Your task to perform on an android device: turn on sleep mode Image 0: 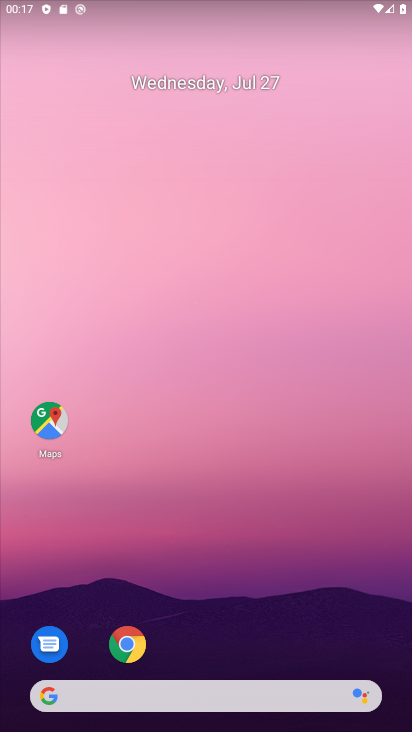
Step 0: drag from (175, 717) to (139, 365)
Your task to perform on an android device: turn on sleep mode Image 1: 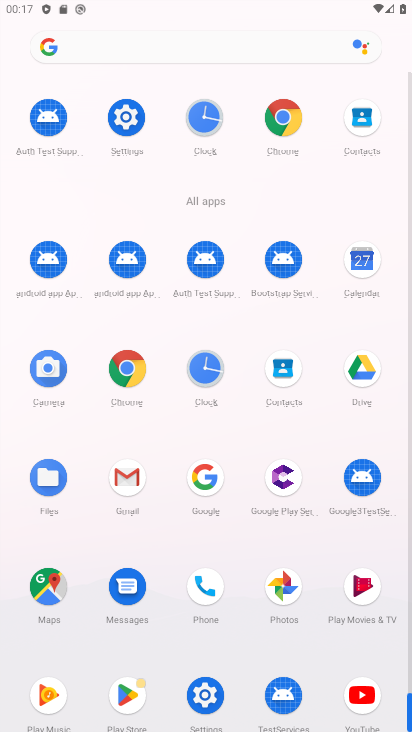
Step 1: click (129, 127)
Your task to perform on an android device: turn on sleep mode Image 2: 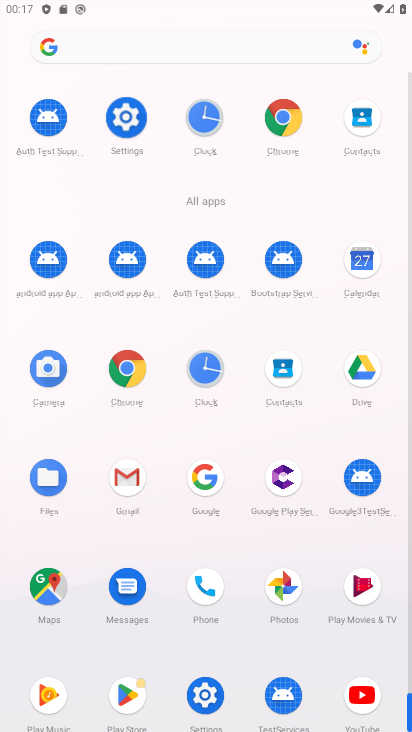
Step 2: click (129, 127)
Your task to perform on an android device: turn on sleep mode Image 3: 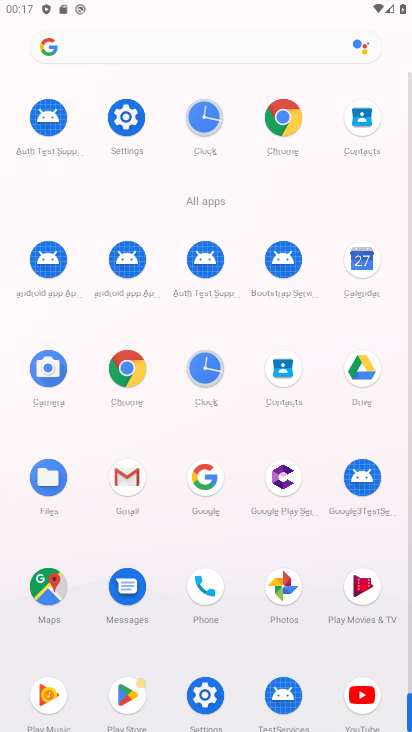
Step 3: click (135, 120)
Your task to perform on an android device: turn on sleep mode Image 4: 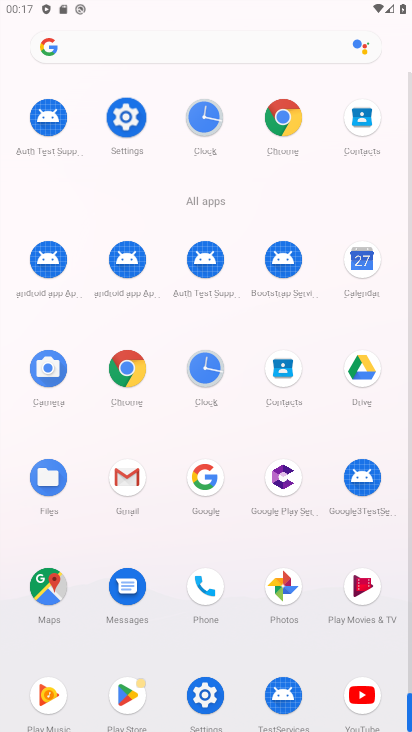
Step 4: click (134, 122)
Your task to perform on an android device: turn on sleep mode Image 5: 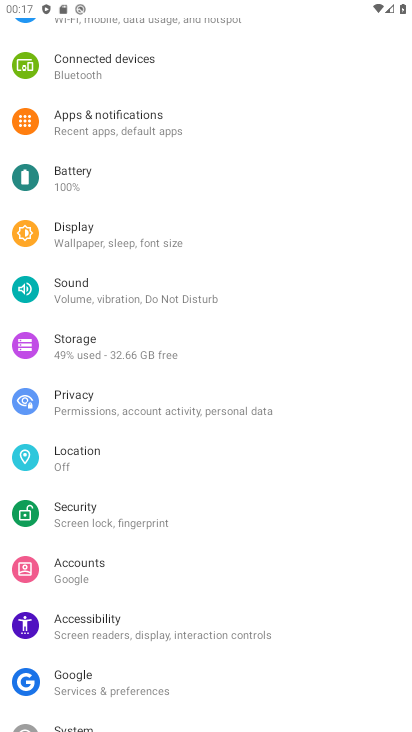
Step 5: drag from (95, 246) to (101, 90)
Your task to perform on an android device: turn on sleep mode Image 6: 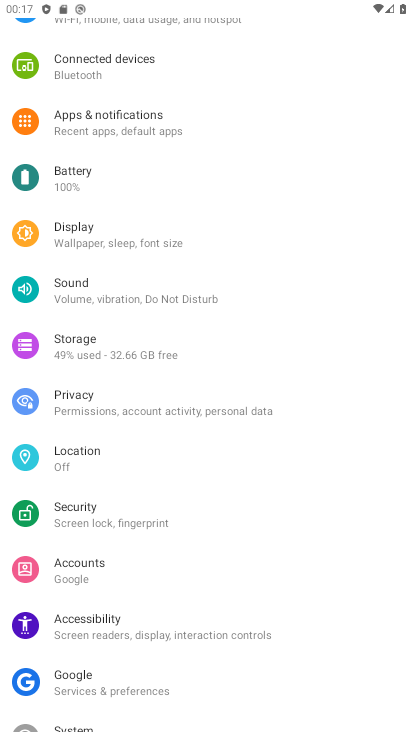
Step 6: drag from (124, 410) to (112, 125)
Your task to perform on an android device: turn on sleep mode Image 7: 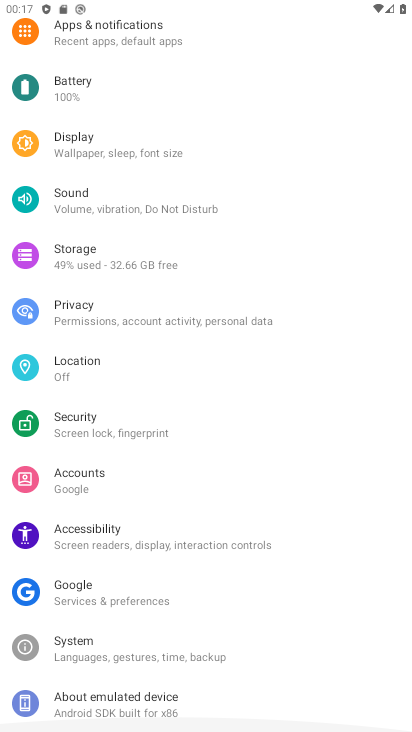
Step 7: click (111, 349)
Your task to perform on an android device: turn on sleep mode Image 8: 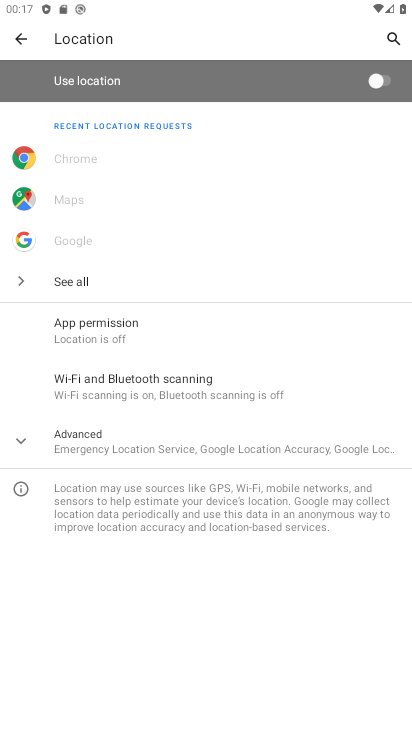
Step 8: click (23, 47)
Your task to perform on an android device: turn on sleep mode Image 9: 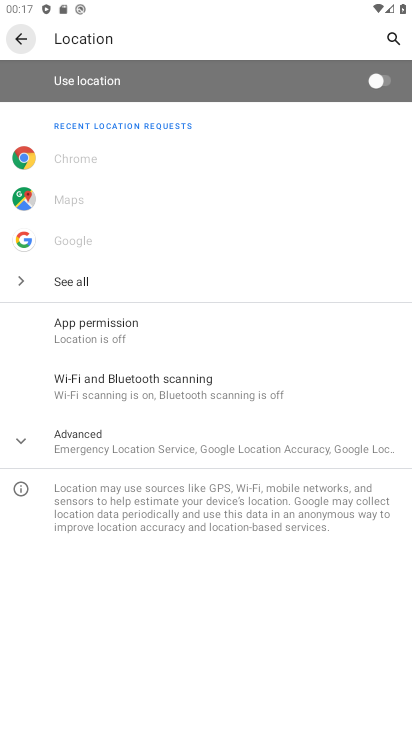
Step 9: click (23, 46)
Your task to perform on an android device: turn on sleep mode Image 10: 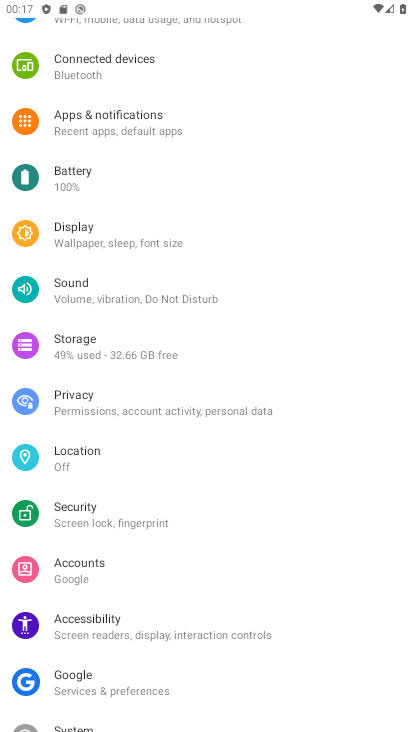
Step 10: click (105, 233)
Your task to perform on an android device: turn on sleep mode Image 11: 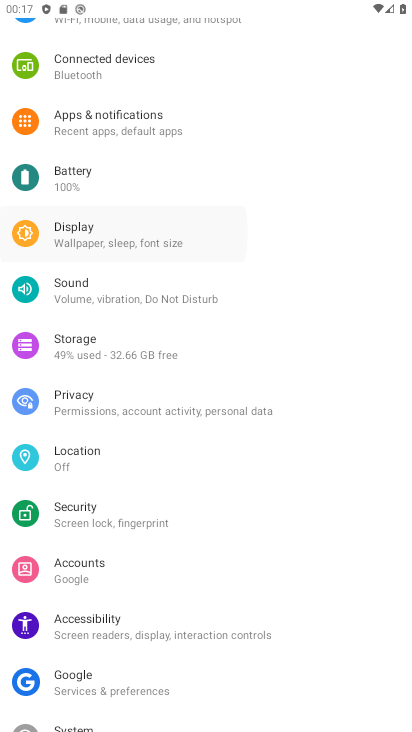
Step 11: click (105, 236)
Your task to perform on an android device: turn on sleep mode Image 12: 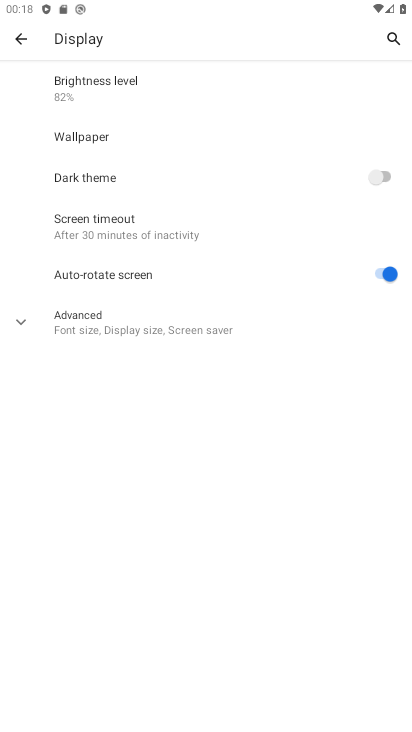
Step 12: task complete